Your task to perform on an android device: toggle data saver in the chrome app Image 0: 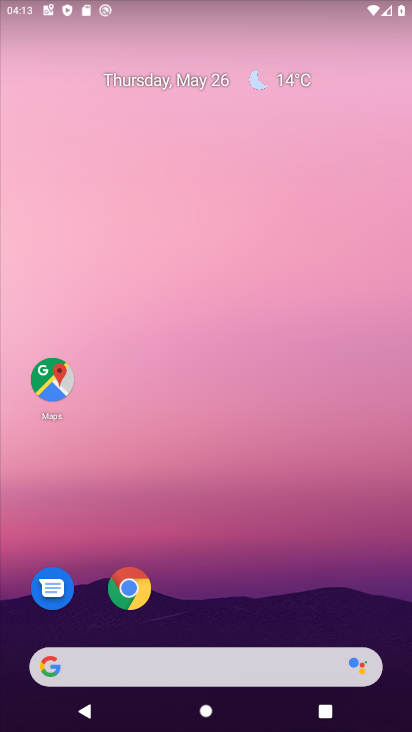
Step 0: click (130, 600)
Your task to perform on an android device: toggle data saver in the chrome app Image 1: 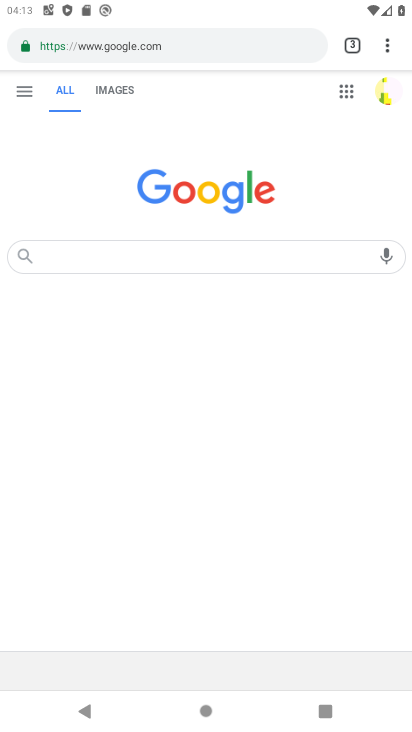
Step 1: click (384, 37)
Your task to perform on an android device: toggle data saver in the chrome app Image 2: 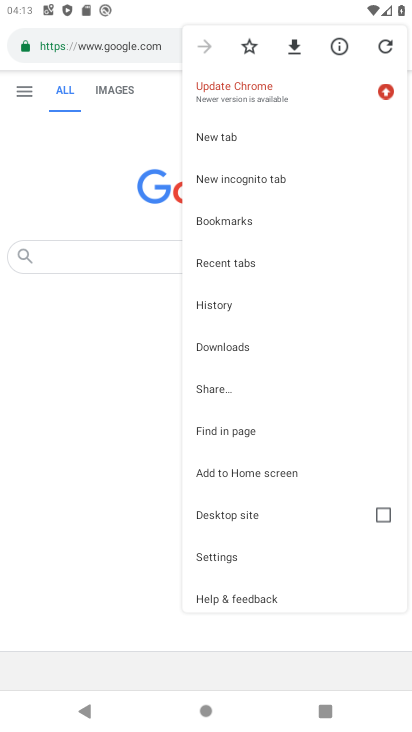
Step 2: click (241, 546)
Your task to perform on an android device: toggle data saver in the chrome app Image 3: 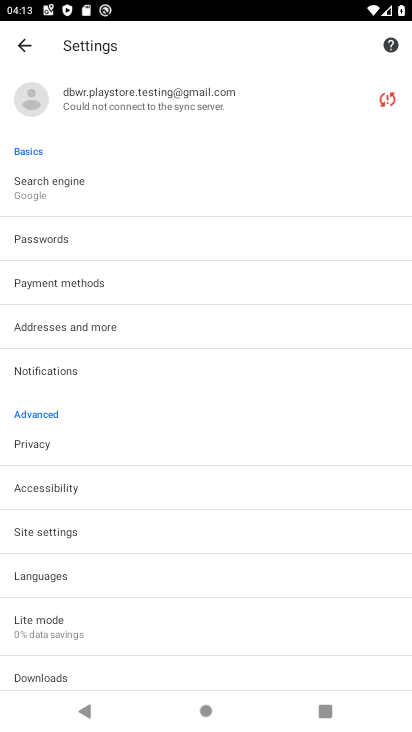
Step 3: click (129, 619)
Your task to perform on an android device: toggle data saver in the chrome app Image 4: 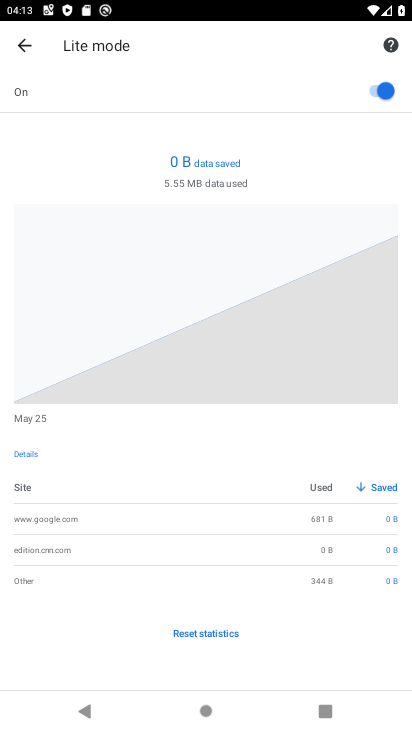
Step 4: click (377, 88)
Your task to perform on an android device: toggle data saver in the chrome app Image 5: 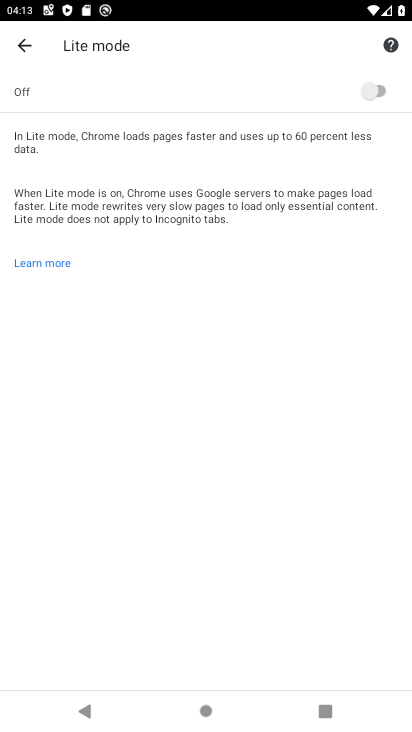
Step 5: task complete